Your task to perform on an android device: Go to Amazon Image 0: 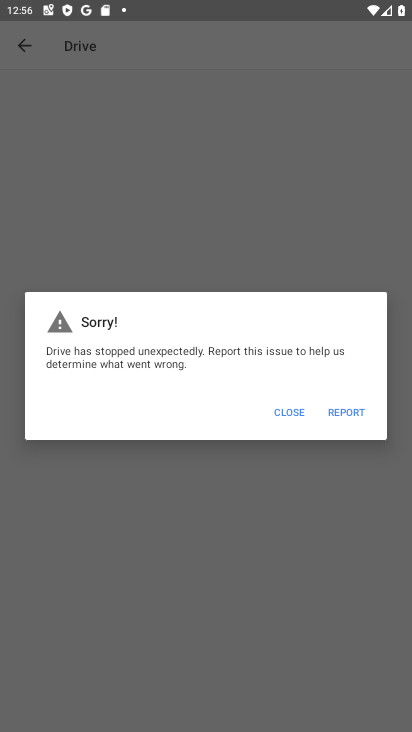
Step 0: press home button
Your task to perform on an android device: Go to Amazon Image 1: 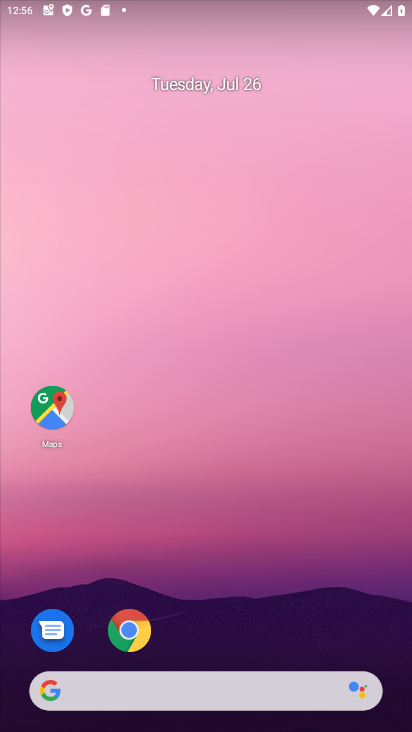
Step 1: click (121, 630)
Your task to perform on an android device: Go to Amazon Image 2: 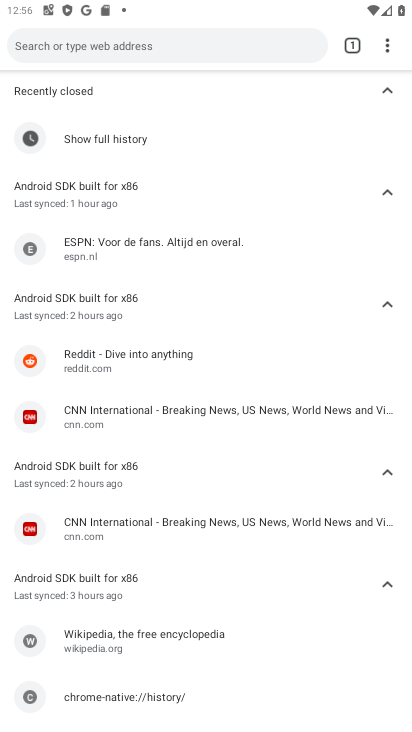
Step 2: press back button
Your task to perform on an android device: Go to Amazon Image 3: 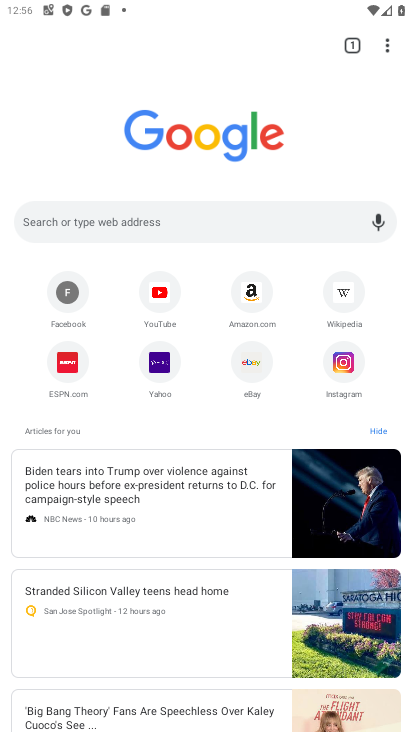
Step 3: click (258, 308)
Your task to perform on an android device: Go to Amazon Image 4: 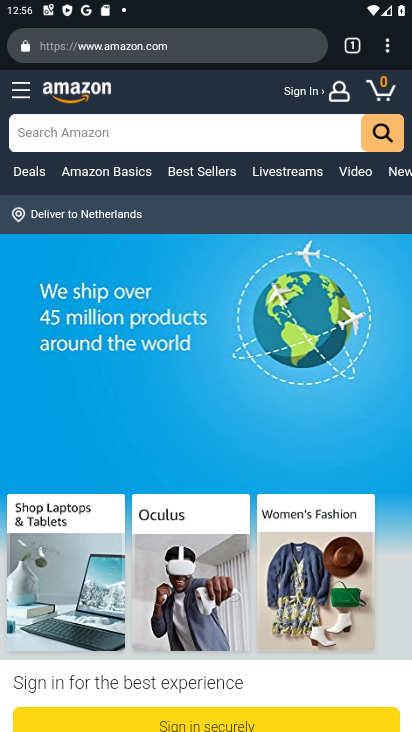
Step 4: task complete